Your task to perform on an android device: toggle javascript in the chrome app Image 0: 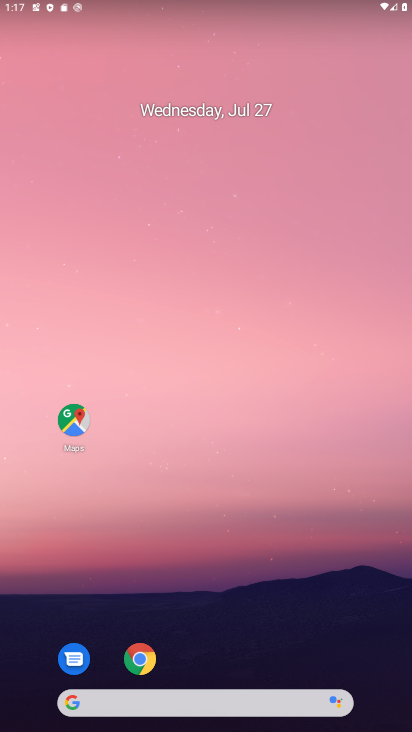
Step 0: drag from (276, 607) to (292, 66)
Your task to perform on an android device: toggle javascript in the chrome app Image 1: 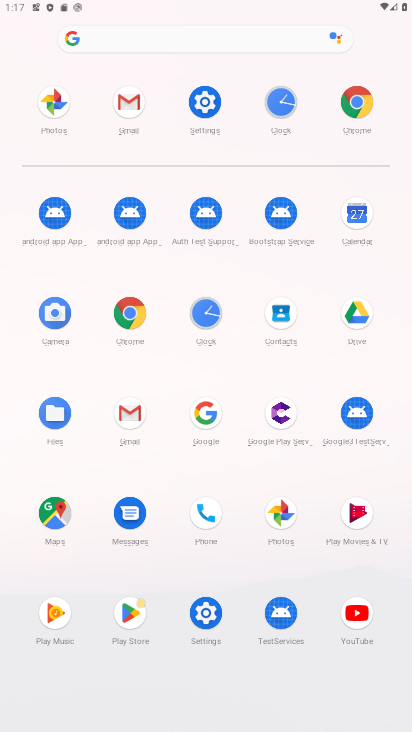
Step 1: click (358, 105)
Your task to perform on an android device: toggle javascript in the chrome app Image 2: 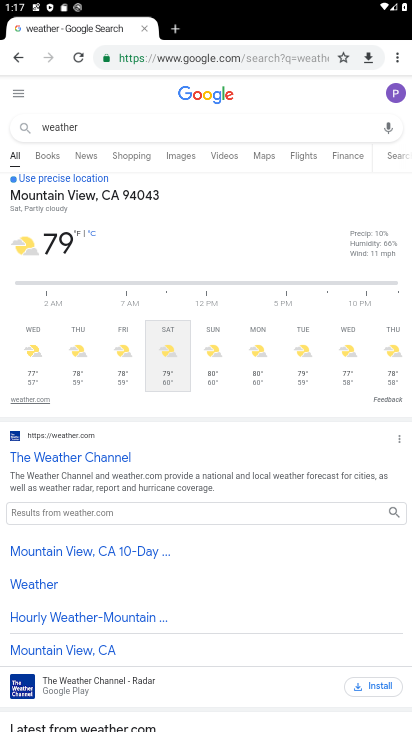
Step 2: drag from (399, 53) to (281, 350)
Your task to perform on an android device: toggle javascript in the chrome app Image 3: 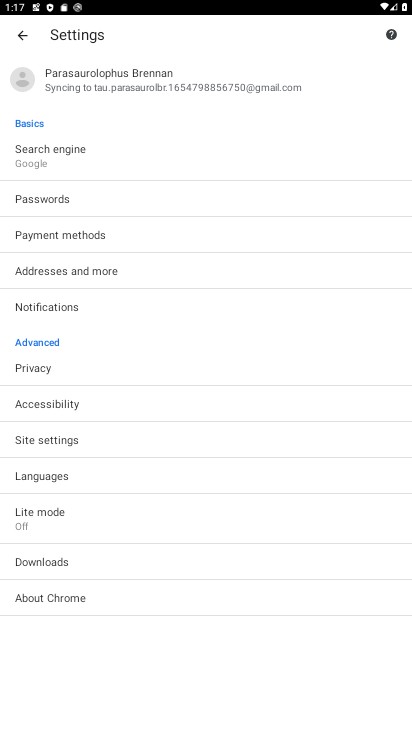
Step 3: click (52, 442)
Your task to perform on an android device: toggle javascript in the chrome app Image 4: 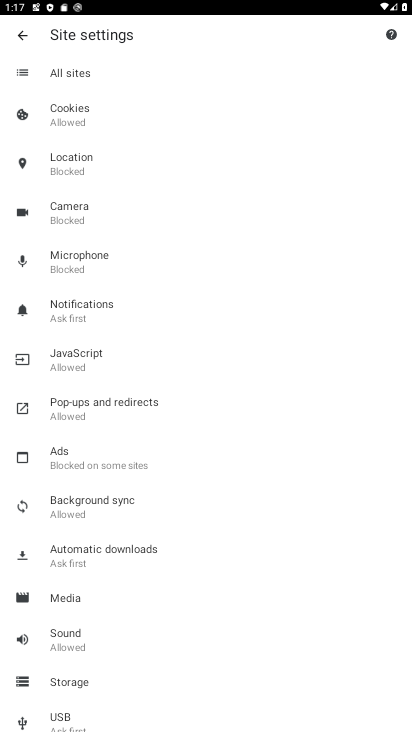
Step 4: click (71, 352)
Your task to perform on an android device: toggle javascript in the chrome app Image 5: 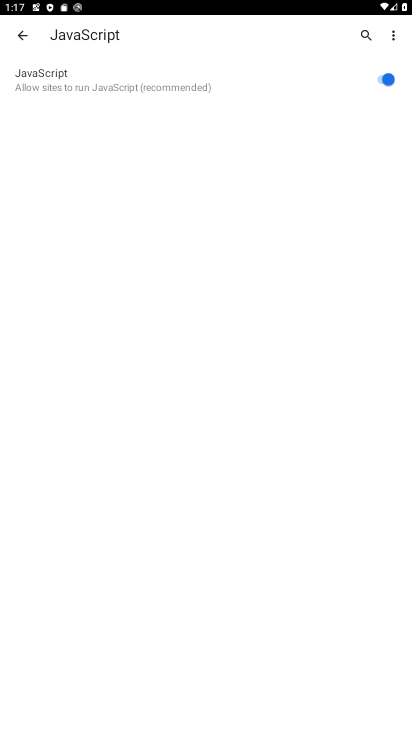
Step 5: click (379, 86)
Your task to perform on an android device: toggle javascript in the chrome app Image 6: 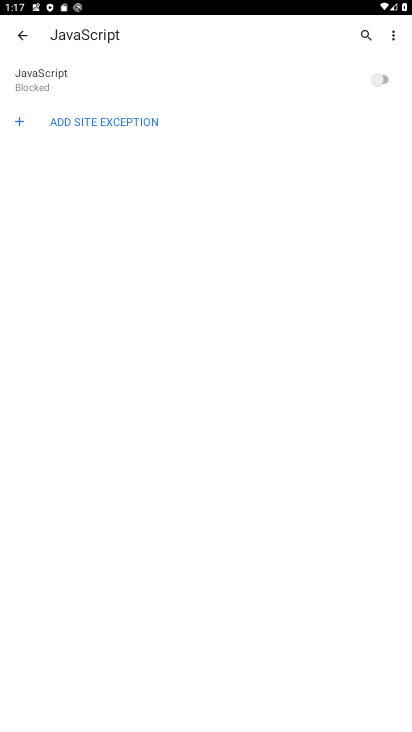
Step 6: task complete